Your task to perform on an android device: open a bookmark in the chrome app Image 0: 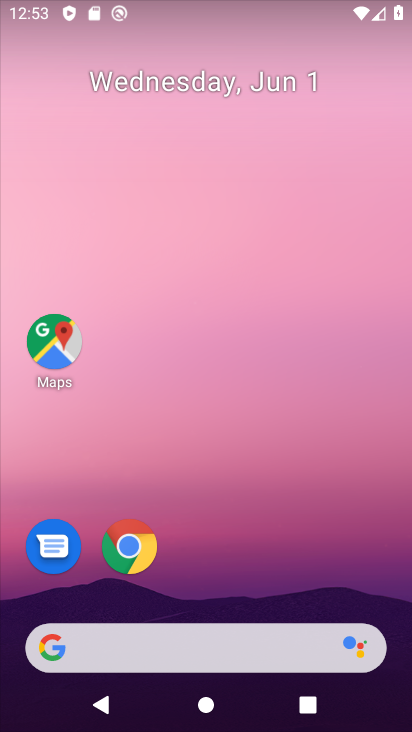
Step 0: click (134, 561)
Your task to perform on an android device: open a bookmark in the chrome app Image 1: 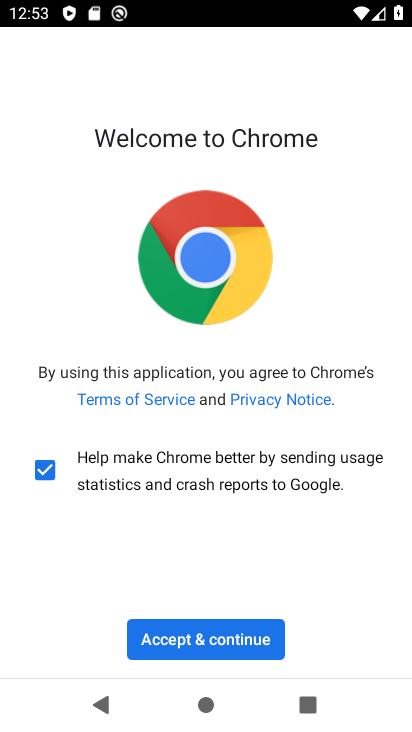
Step 1: click (198, 637)
Your task to perform on an android device: open a bookmark in the chrome app Image 2: 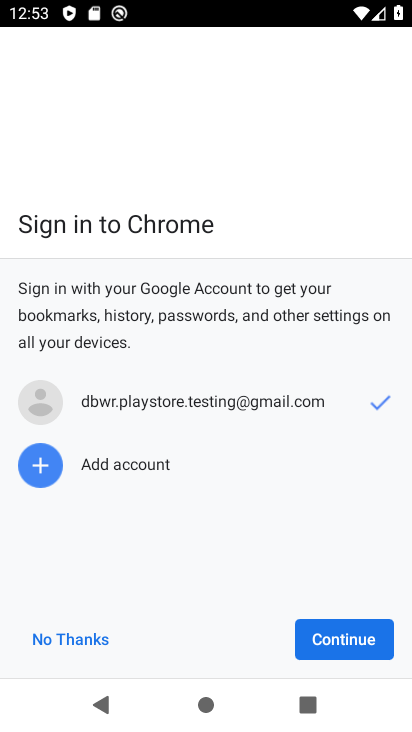
Step 2: click (356, 647)
Your task to perform on an android device: open a bookmark in the chrome app Image 3: 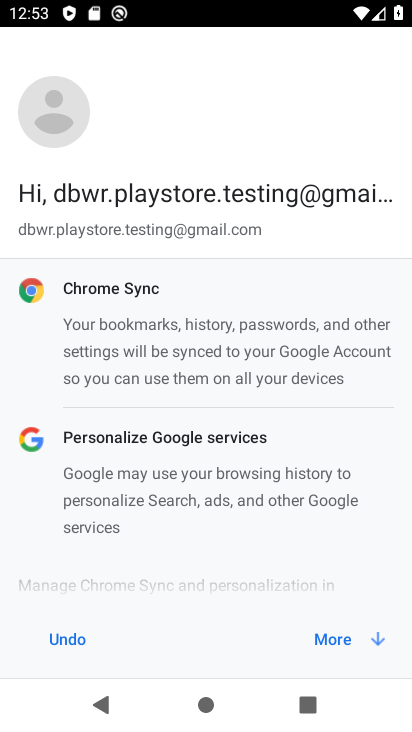
Step 3: click (347, 634)
Your task to perform on an android device: open a bookmark in the chrome app Image 4: 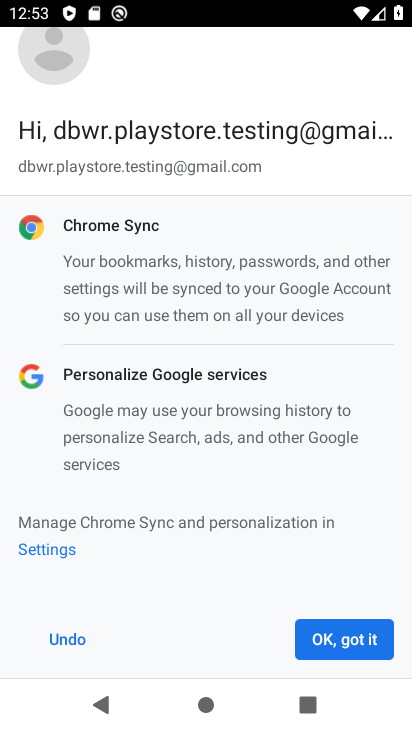
Step 4: click (347, 634)
Your task to perform on an android device: open a bookmark in the chrome app Image 5: 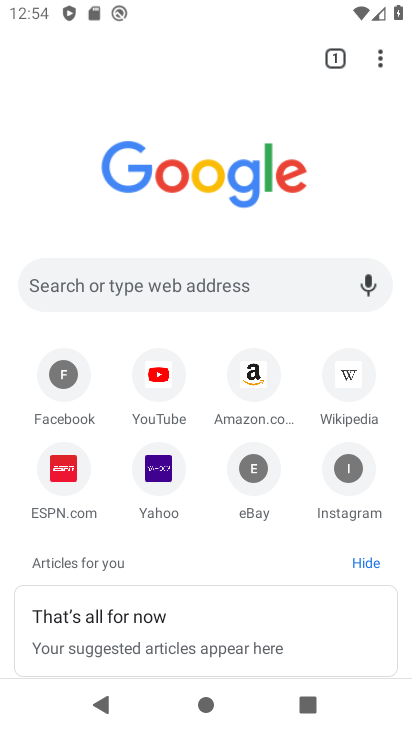
Step 5: task complete